Your task to perform on an android device: Go to network settings Image 0: 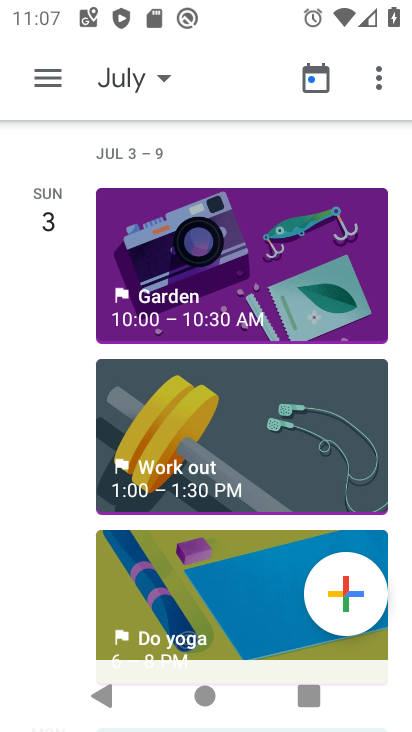
Step 0: press home button
Your task to perform on an android device: Go to network settings Image 1: 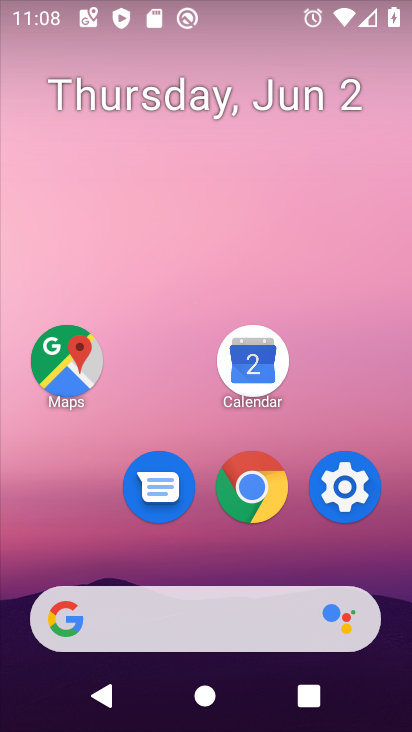
Step 1: click (330, 496)
Your task to perform on an android device: Go to network settings Image 2: 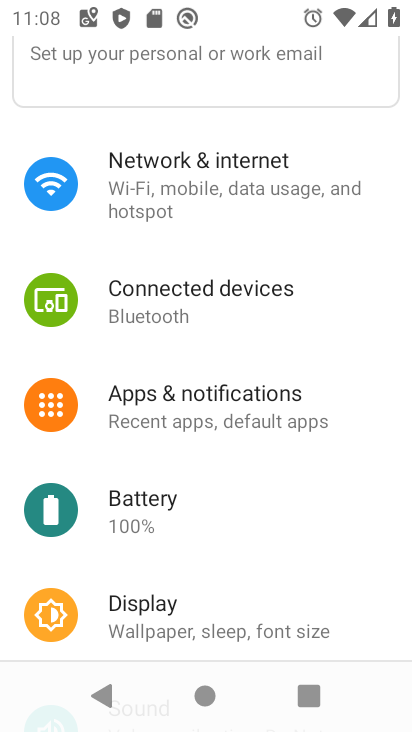
Step 2: click (159, 198)
Your task to perform on an android device: Go to network settings Image 3: 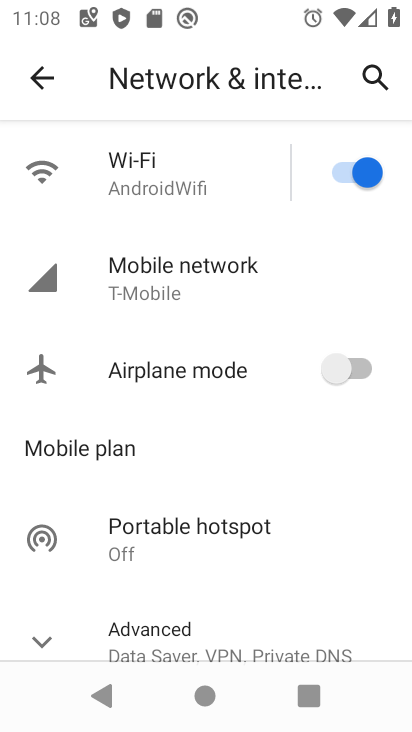
Step 3: task complete